Your task to perform on an android device: turn off wifi Image 0: 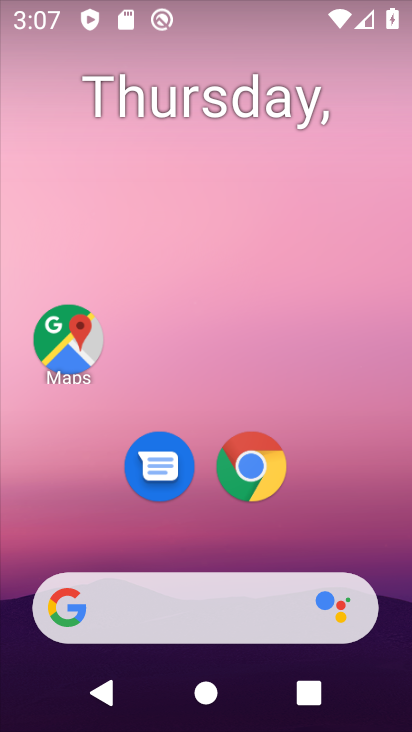
Step 0: drag from (166, 553) to (401, 623)
Your task to perform on an android device: turn off wifi Image 1: 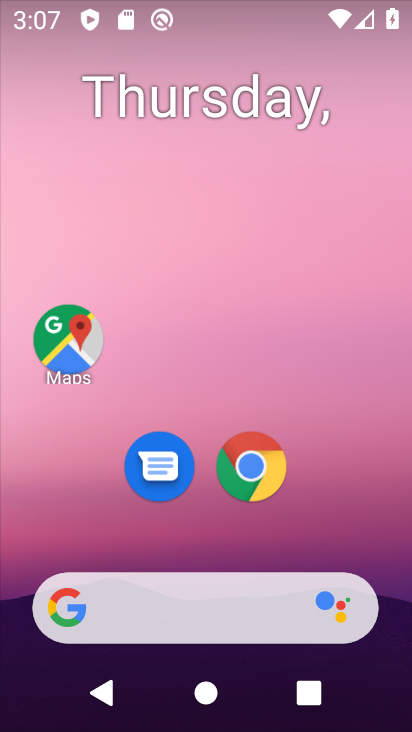
Step 1: drag from (210, 552) to (183, 15)
Your task to perform on an android device: turn off wifi Image 2: 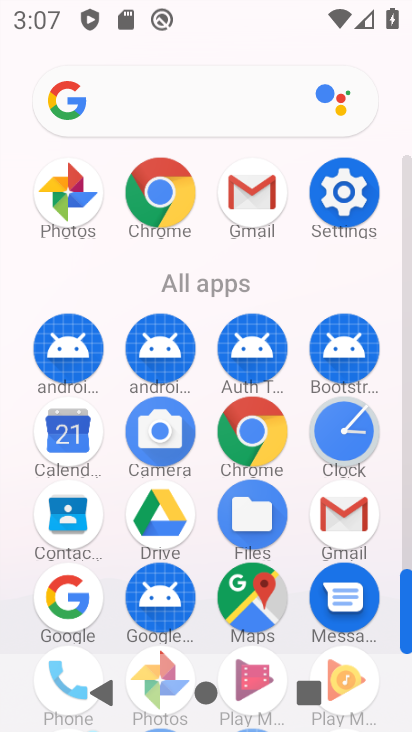
Step 2: click (343, 186)
Your task to perform on an android device: turn off wifi Image 3: 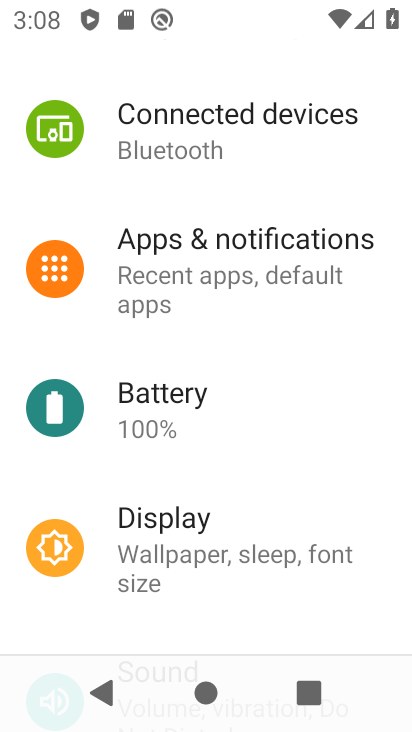
Step 3: drag from (210, 149) to (148, 561)
Your task to perform on an android device: turn off wifi Image 4: 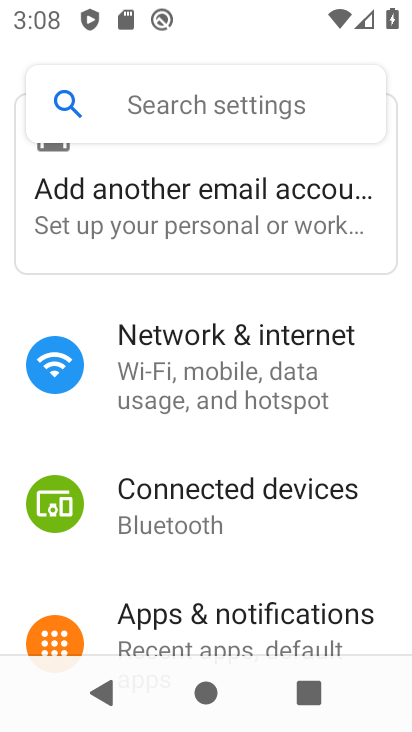
Step 4: click (173, 353)
Your task to perform on an android device: turn off wifi Image 5: 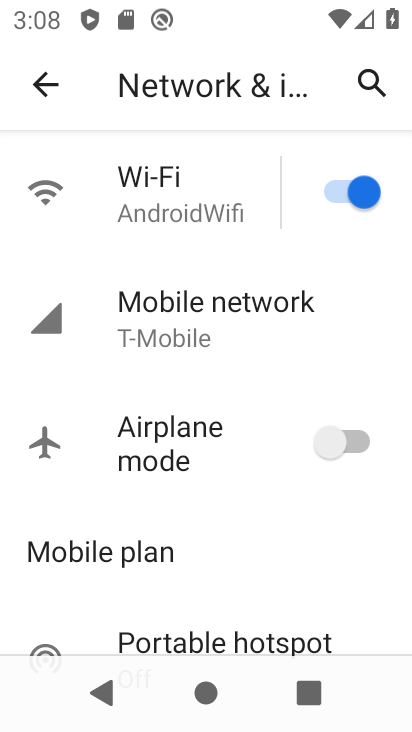
Step 5: click (345, 181)
Your task to perform on an android device: turn off wifi Image 6: 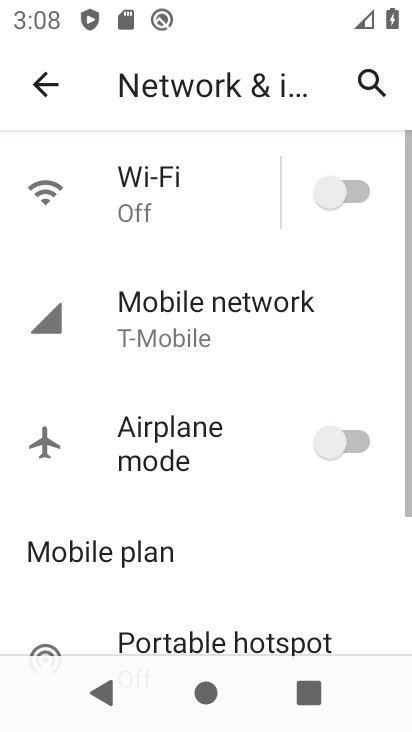
Step 6: task complete